Your task to perform on an android device: Go to Yahoo.com Image 0: 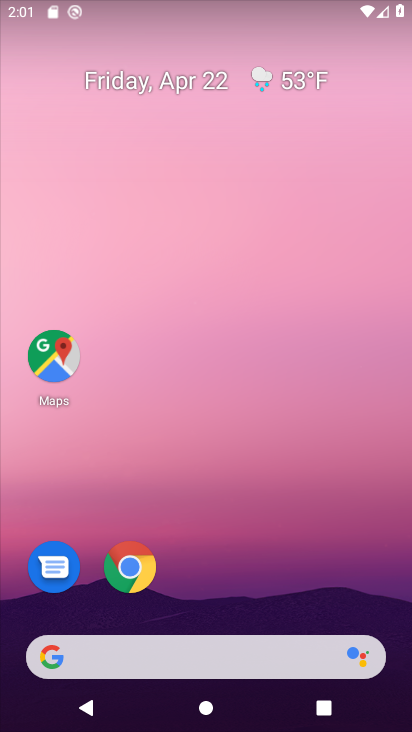
Step 0: click (179, 658)
Your task to perform on an android device: Go to Yahoo.com Image 1: 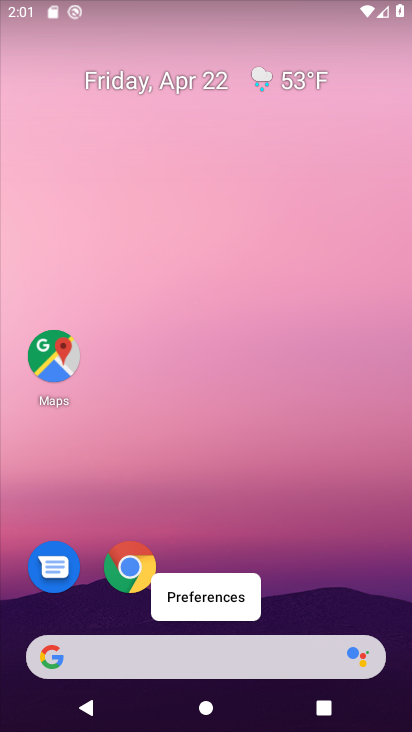
Step 1: click (179, 659)
Your task to perform on an android device: Go to Yahoo.com Image 2: 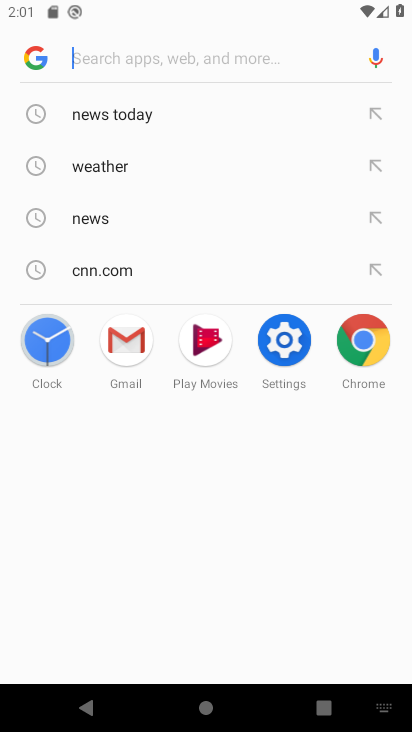
Step 2: type "yahoo.com"
Your task to perform on an android device: Go to Yahoo.com Image 3: 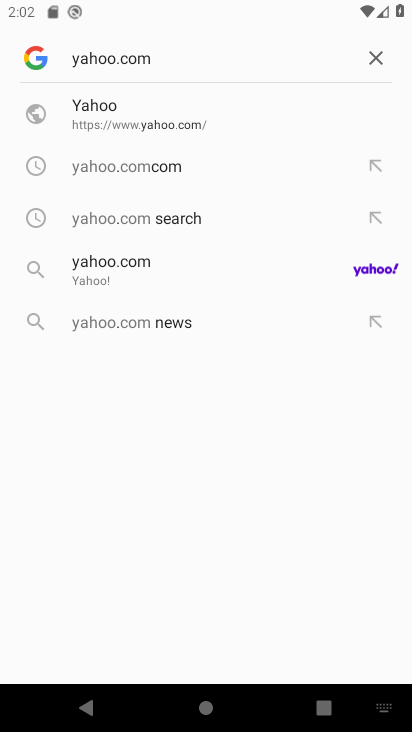
Step 3: click (193, 272)
Your task to perform on an android device: Go to Yahoo.com Image 4: 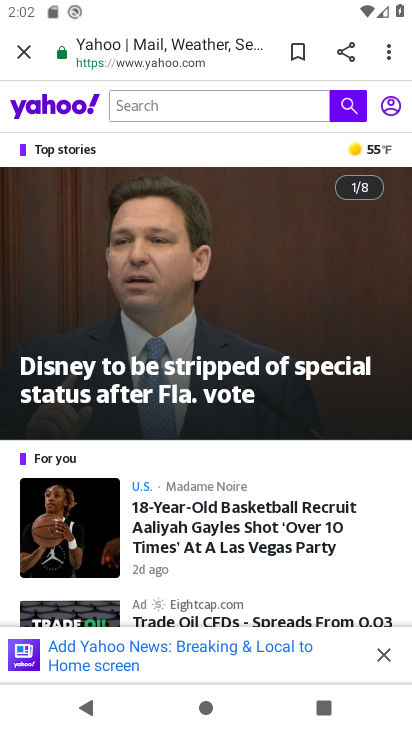
Step 4: task complete